Your task to perform on an android device: Open Google Chrome and click the shortcut for Amazon.com Image 0: 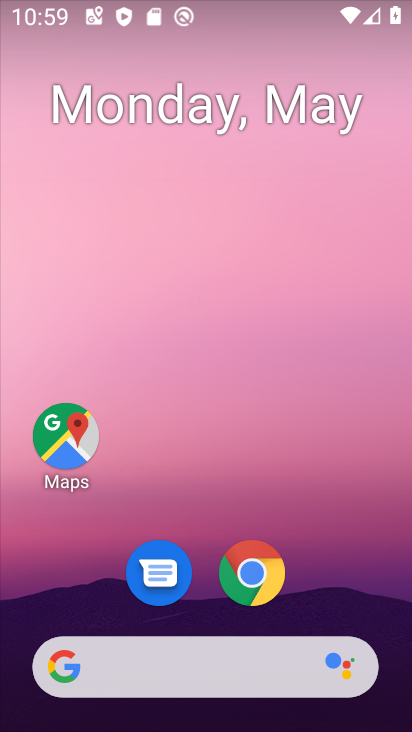
Step 0: click (265, 572)
Your task to perform on an android device: Open Google Chrome and click the shortcut for Amazon.com Image 1: 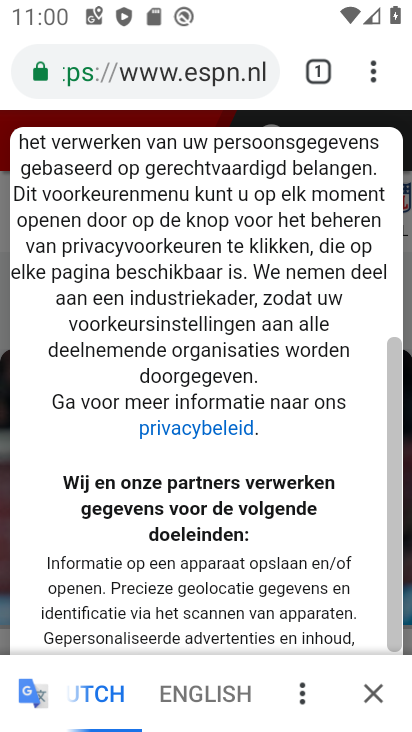
Step 1: click (370, 79)
Your task to perform on an android device: Open Google Chrome and click the shortcut for Amazon.com Image 2: 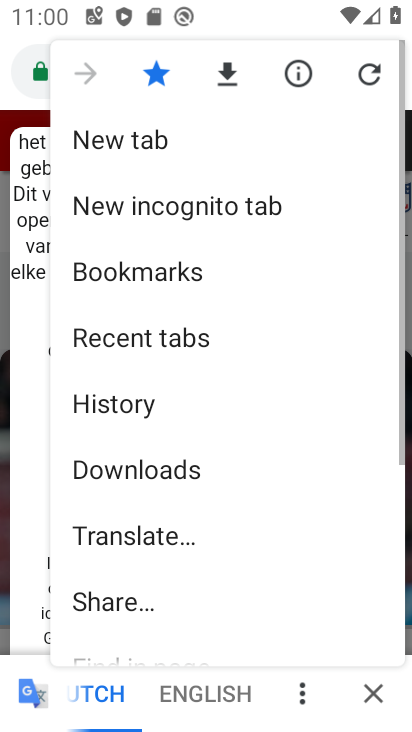
Step 2: click (153, 141)
Your task to perform on an android device: Open Google Chrome and click the shortcut for Amazon.com Image 3: 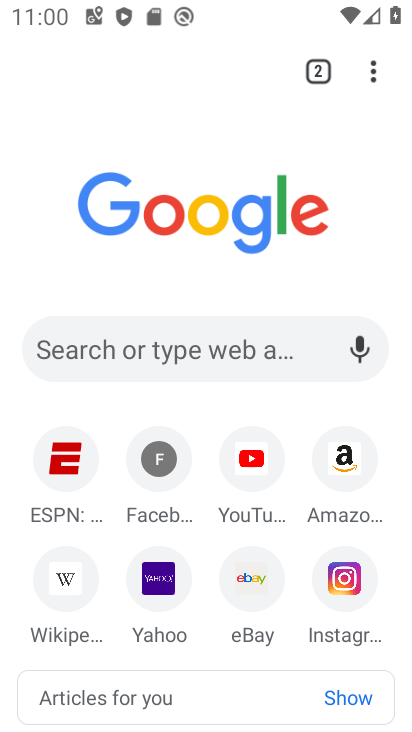
Step 3: click (354, 456)
Your task to perform on an android device: Open Google Chrome and click the shortcut for Amazon.com Image 4: 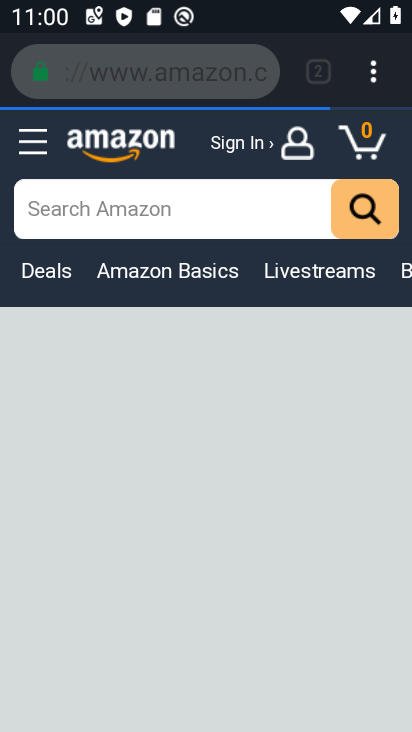
Step 4: task complete